Your task to perform on an android device: turn vacation reply on in the gmail app Image 0: 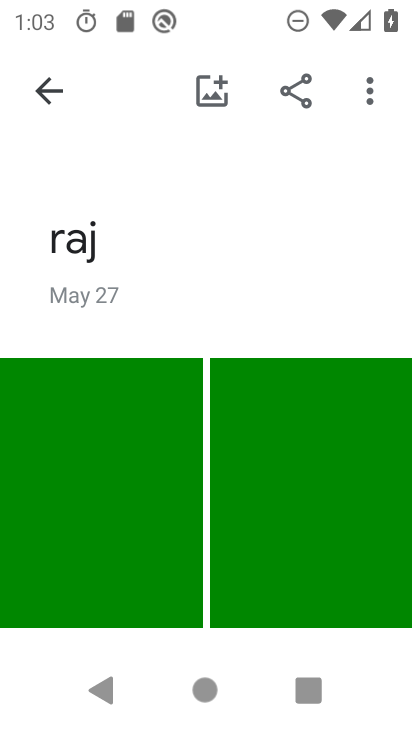
Step 0: press back button
Your task to perform on an android device: turn vacation reply on in the gmail app Image 1: 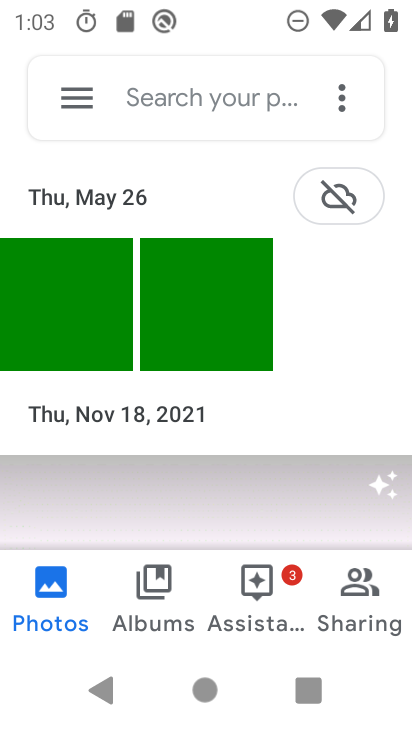
Step 1: press home button
Your task to perform on an android device: turn vacation reply on in the gmail app Image 2: 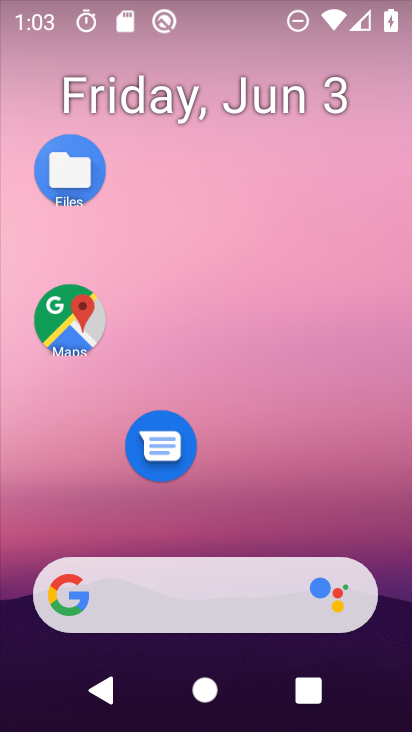
Step 2: drag from (257, 663) to (142, 164)
Your task to perform on an android device: turn vacation reply on in the gmail app Image 3: 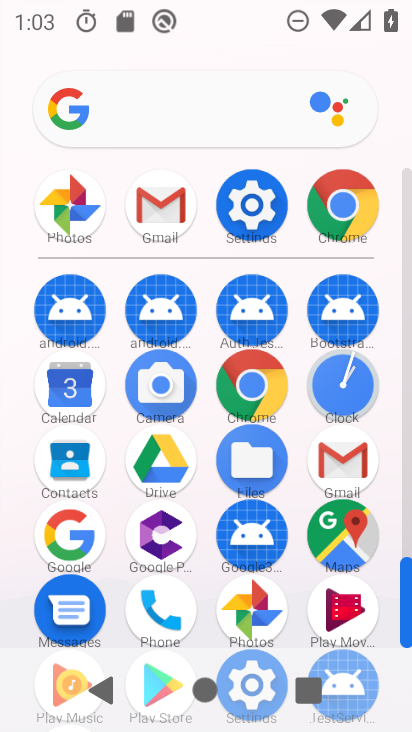
Step 3: click (334, 445)
Your task to perform on an android device: turn vacation reply on in the gmail app Image 4: 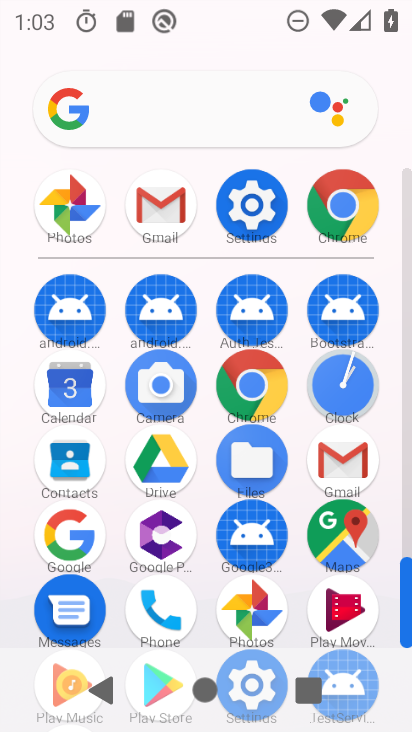
Step 4: click (334, 445)
Your task to perform on an android device: turn vacation reply on in the gmail app Image 5: 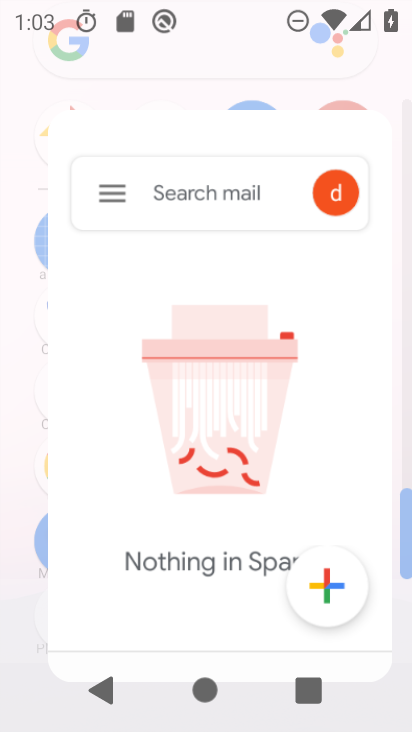
Step 5: click (334, 445)
Your task to perform on an android device: turn vacation reply on in the gmail app Image 6: 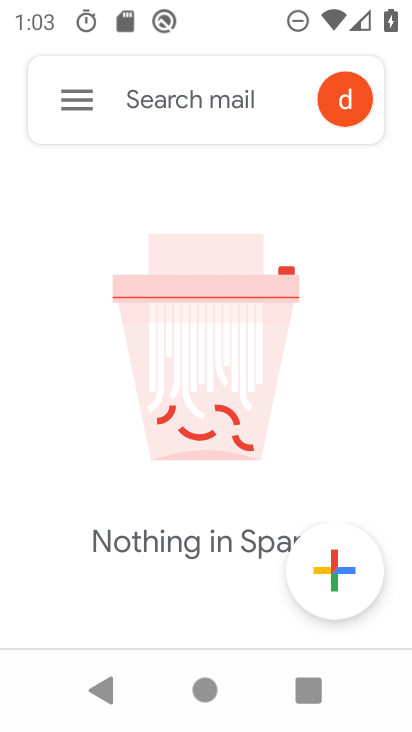
Step 6: click (78, 103)
Your task to perform on an android device: turn vacation reply on in the gmail app Image 7: 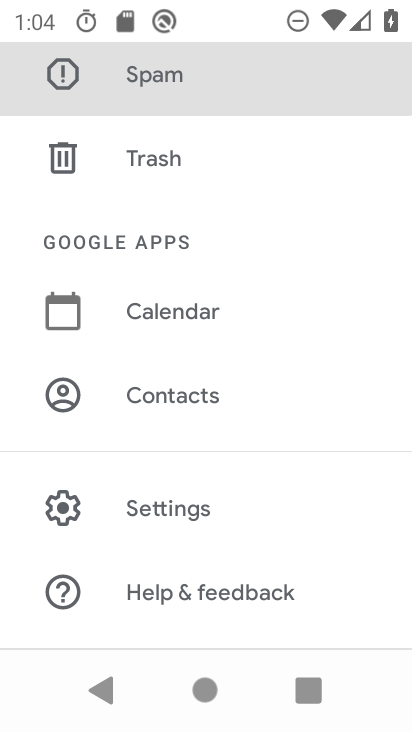
Step 7: drag from (233, 229) to (263, 439)
Your task to perform on an android device: turn vacation reply on in the gmail app Image 8: 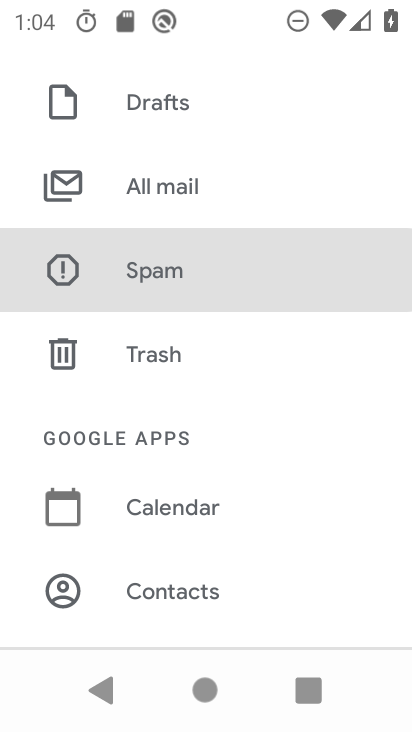
Step 8: drag from (292, 240) to (298, 466)
Your task to perform on an android device: turn vacation reply on in the gmail app Image 9: 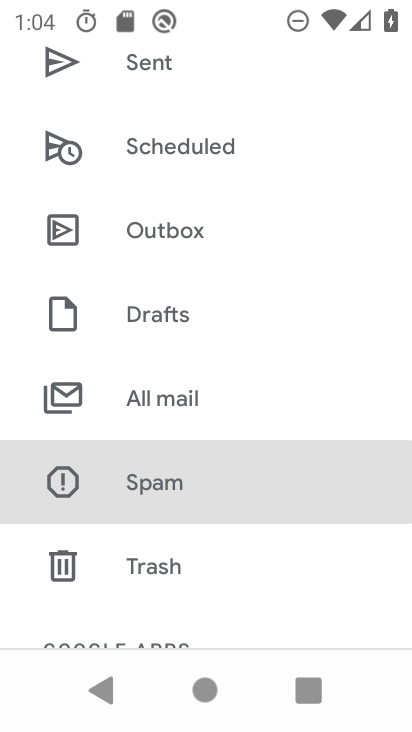
Step 9: drag from (233, 518) to (191, 92)
Your task to perform on an android device: turn vacation reply on in the gmail app Image 10: 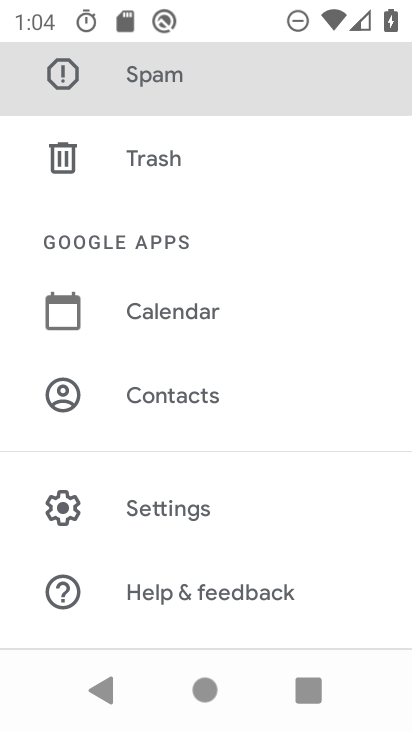
Step 10: drag from (249, 387) to (250, 198)
Your task to perform on an android device: turn vacation reply on in the gmail app Image 11: 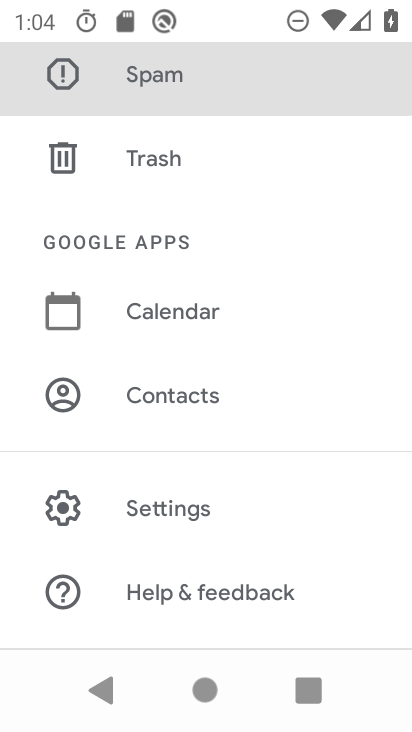
Step 11: click (175, 509)
Your task to perform on an android device: turn vacation reply on in the gmail app Image 12: 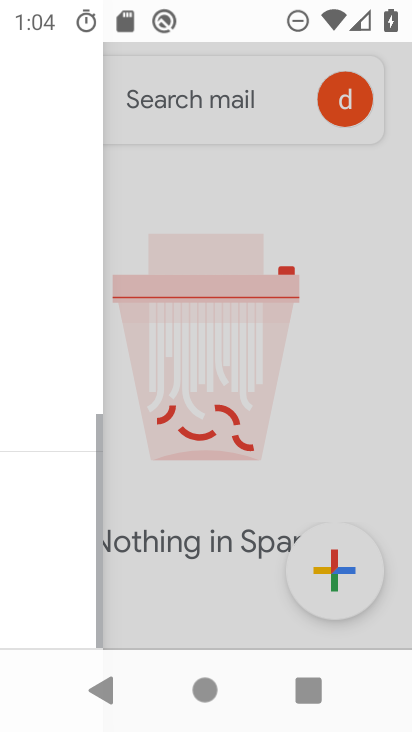
Step 12: click (175, 509)
Your task to perform on an android device: turn vacation reply on in the gmail app Image 13: 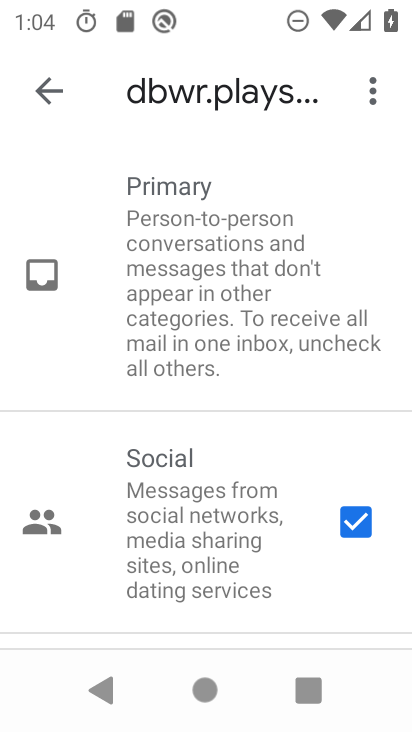
Step 13: click (59, 90)
Your task to perform on an android device: turn vacation reply on in the gmail app Image 14: 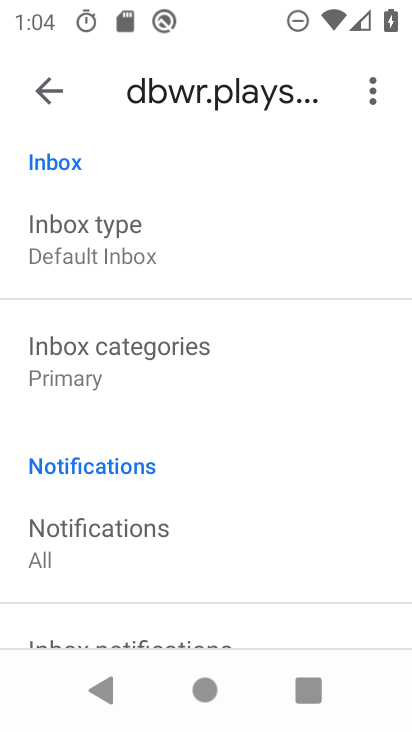
Step 14: drag from (118, 506) to (91, 124)
Your task to perform on an android device: turn vacation reply on in the gmail app Image 15: 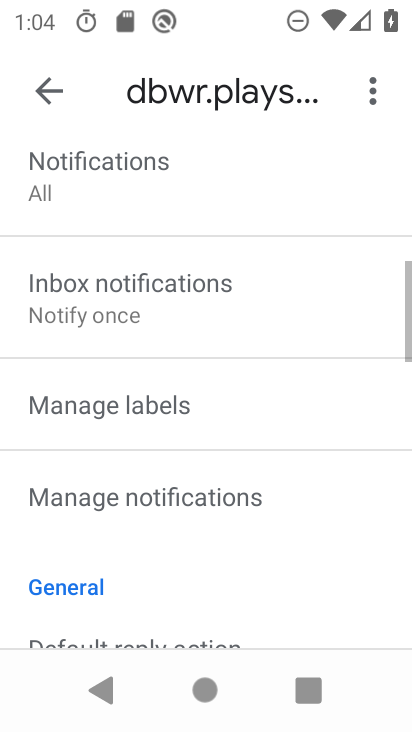
Step 15: drag from (111, 340) to (91, 162)
Your task to perform on an android device: turn vacation reply on in the gmail app Image 16: 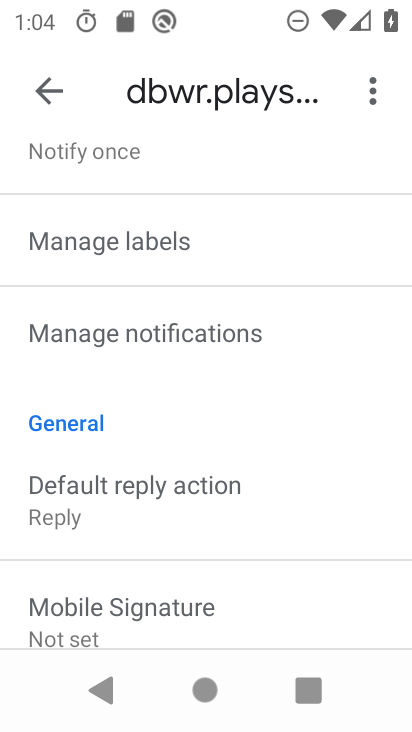
Step 16: click (110, 175)
Your task to perform on an android device: turn vacation reply on in the gmail app Image 17: 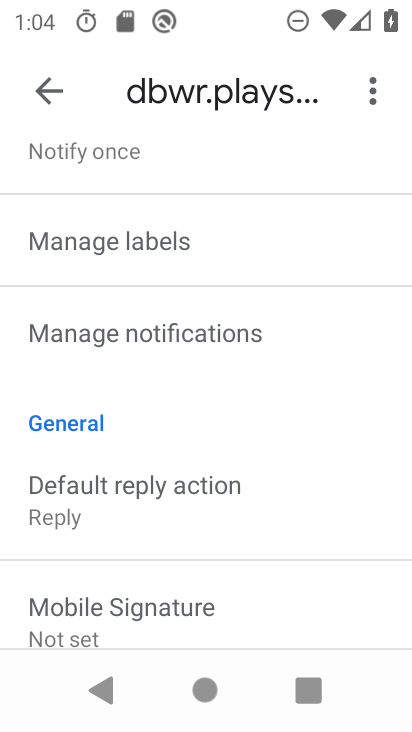
Step 17: drag from (114, 304) to (114, 159)
Your task to perform on an android device: turn vacation reply on in the gmail app Image 18: 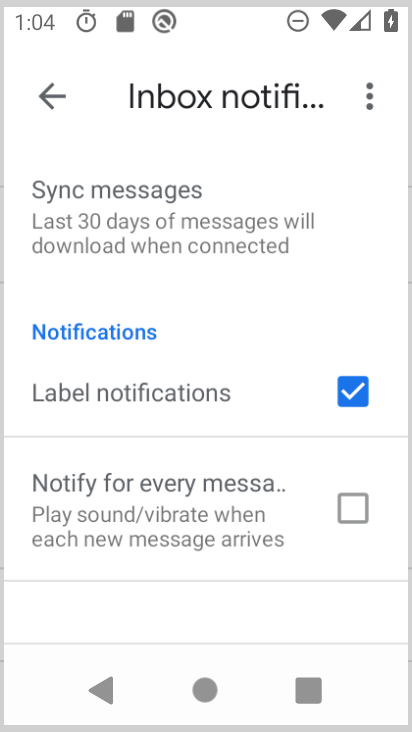
Step 18: drag from (139, 413) to (146, 231)
Your task to perform on an android device: turn vacation reply on in the gmail app Image 19: 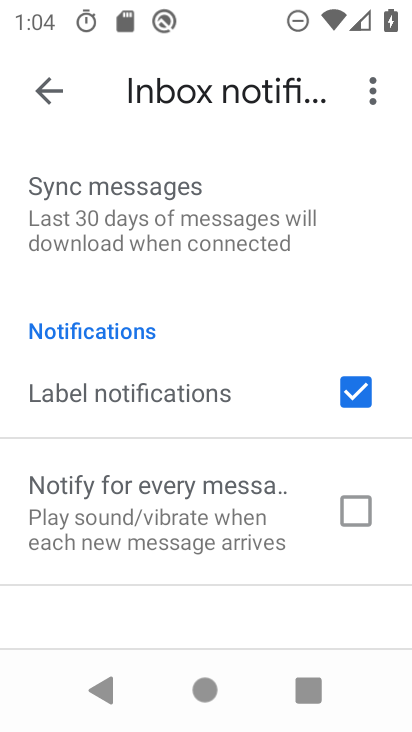
Step 19: drag from (165, 417) to (165, 248)
Your task to perform on an android device: turn vacation reply on in the gmail app Image 20: 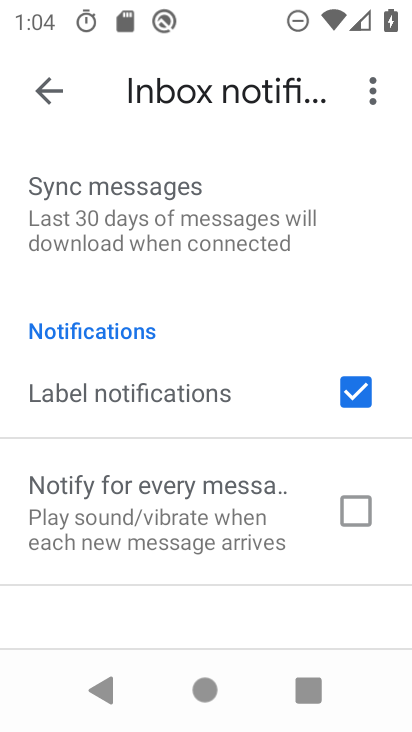
Step 20: click (44, 87)
Your task to perform on an android device: turn vacation reply on in the gmail app Image 21: 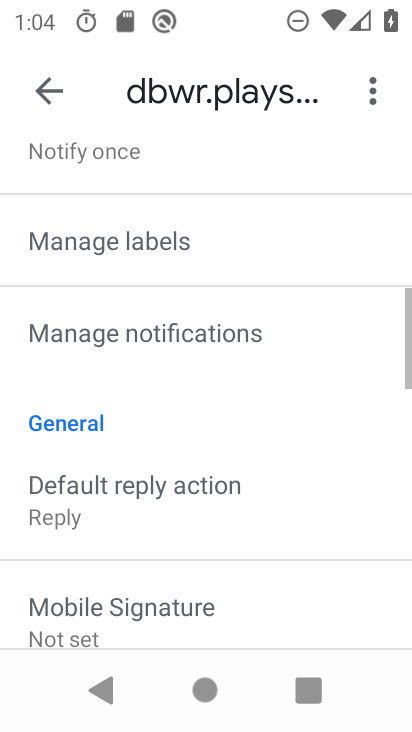
Step 21: drag from (166, 476) to (183, 202)
Your task to perform on an android device: turn vacation reply on in the gmail app Image 22: 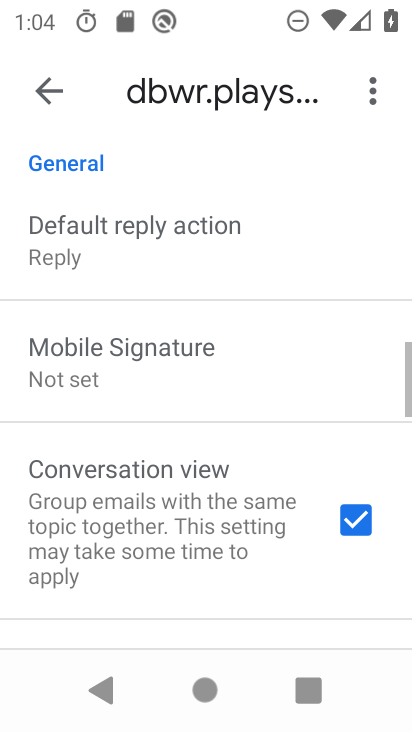
Step 22: drag from (227, 505) to (244, 236)
Your task to perform on an android device: turn vacation reply on in the gmail app Image 23: 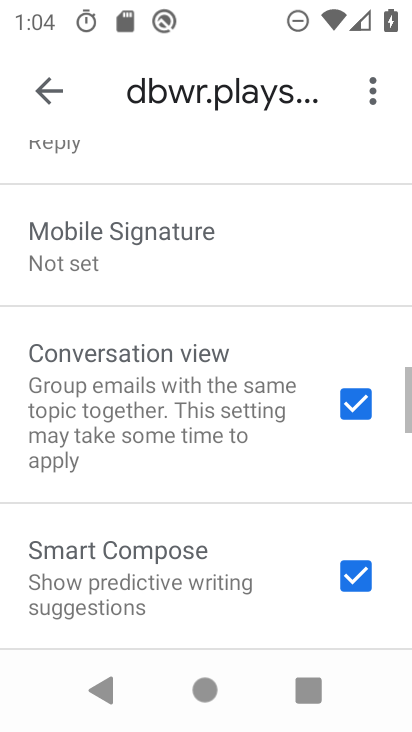
Step 23: drag from (291, 465) to (296, 273)
Your task to perform on an android device: turn vacation reply on in the gmail app Image 24: 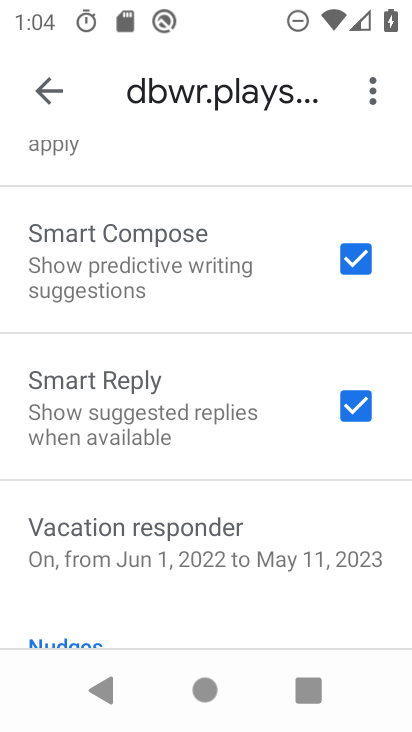
Step 24: drag from (223, 480) to (224, 297)
Your task to perform on an android device: turn vacation reply on in the gmail app Image 25: 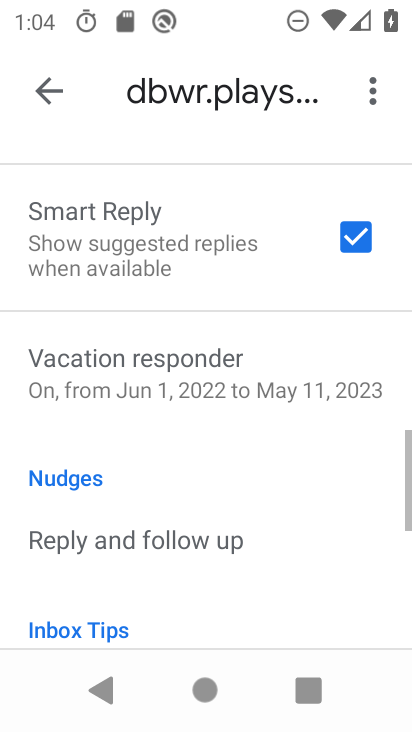
Step 25: drag from (242, 433) to (242, 220)
Your task to perform on an android device: turn vacation reply on in the gmail app Image 26: 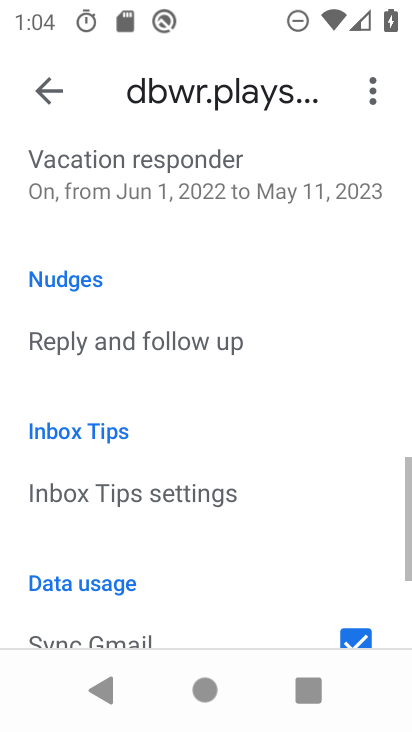
Step 26: drag from (242, 444) to (252, 265)
Your task to perform on an android device: turn vacation reply on in the gmail app Image 27: 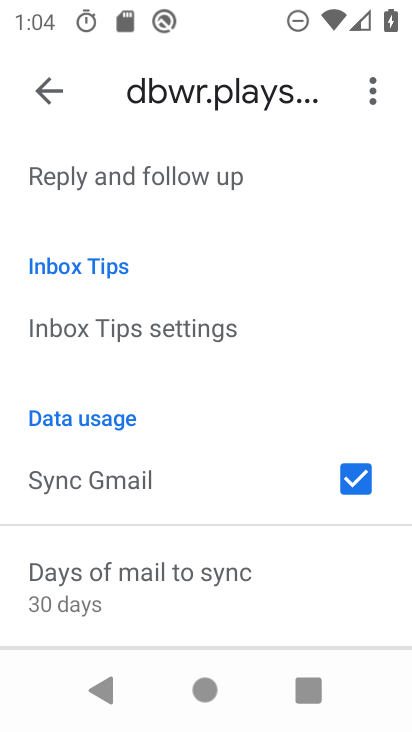
Step 27: drag from (225, 467) to (226, 392)
Your task to perform on an android device: turn vacation reply on in the gmail app Image 28: 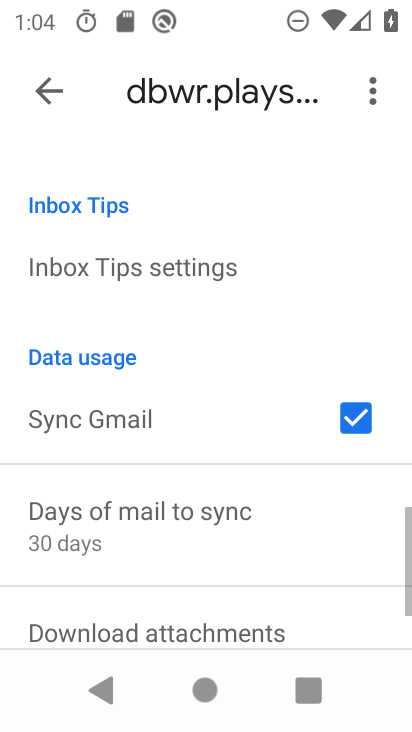
Step 28: drag from (209, 330) to (209, 556)
Your task to perform on an android device: turn vacation reply on in the gmail app Image 29: 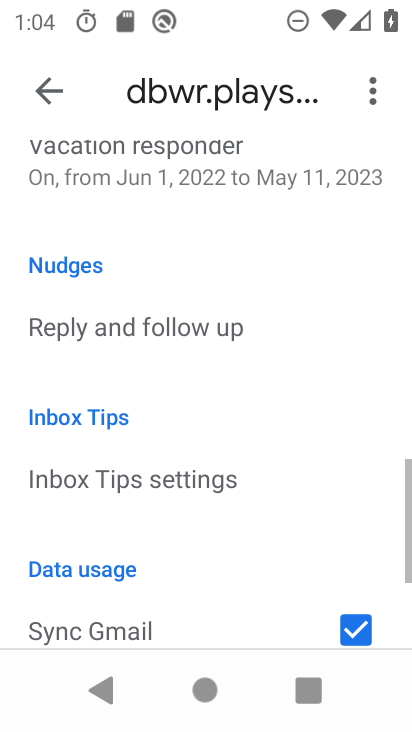
Step 29: drag from (175, 325) to (175, 586)
Your task to perform on an android device: turn vacation reply on in the gmail app Image 30: 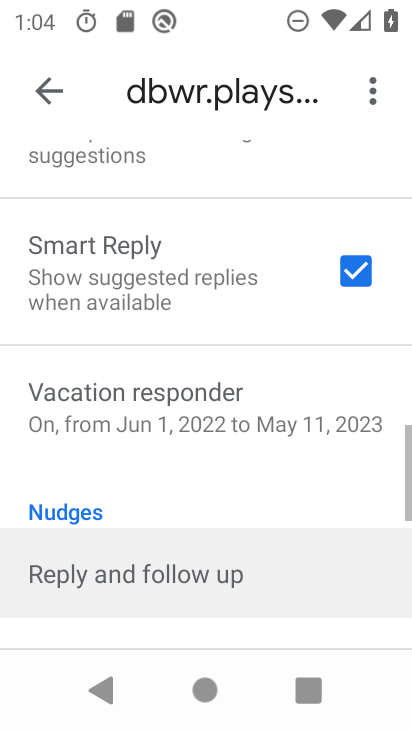
Step 30: drag from (139, 346) to (174, 618)
Your task to perform on an android device: turn vacation reply on in the gmail app Image 31: 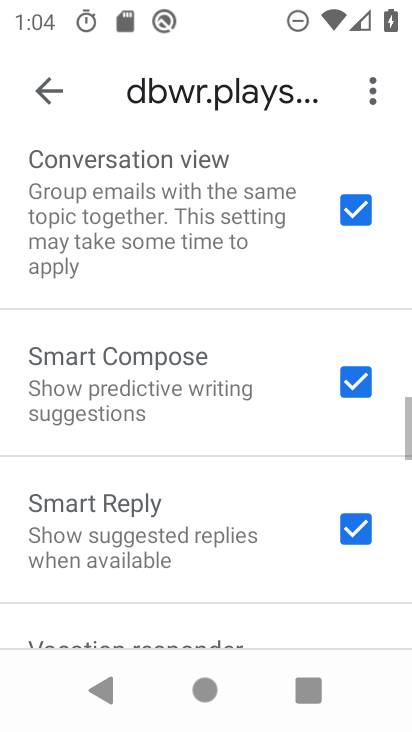
Step 31: drag from (159, 334) to (190, 577)
Your task to perform on an android device: turn vacation reply on in the gmail app Image 32: 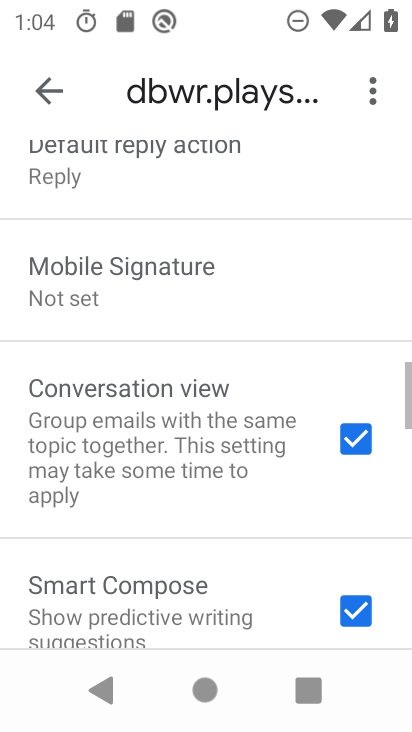
Step 32: drag from (155, 329) to (180, 532)
Your task to perform on an android device: turn vacation reply on in the gmail app Image 33: 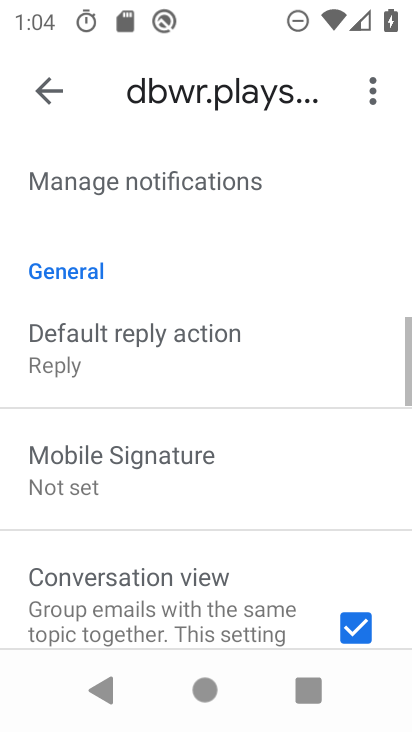
Step 33: drag from (154, 325) to (187, 578)
Your task to perform on an android device: turn vacation reply on in the gmail app Image 34: 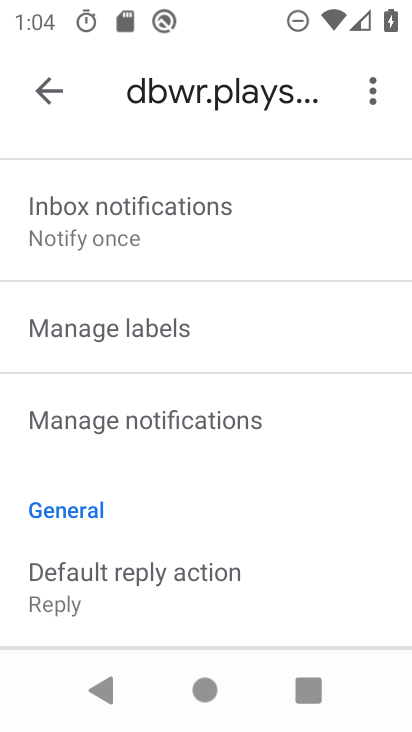
Step 34: drag from (181, 332) to (227, 631)
Your task to perform on an android device: turn vacation reply on in the gmail app Image 35: 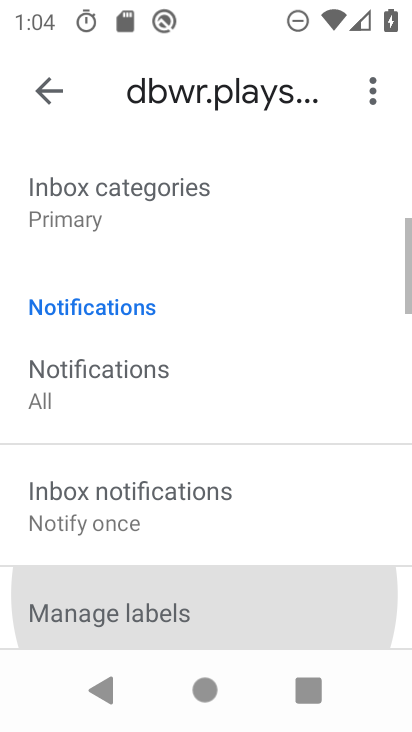
Step 35: drag from (151, 307) to (177, 512)
Your task to perform on an android device: turn vacation reply on in the gmail app Image 36: 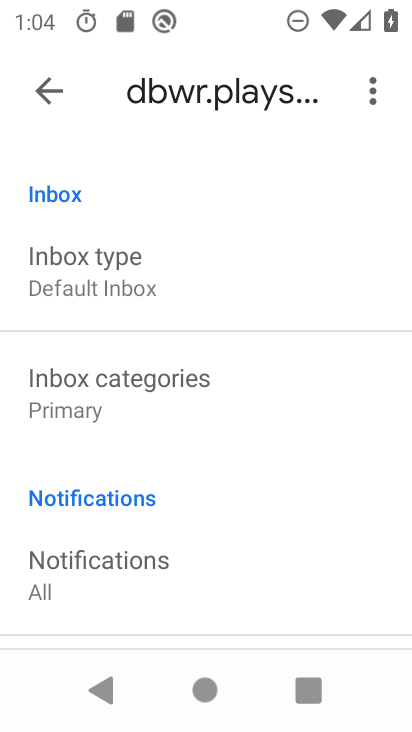
Step 36: drag from (121, 291) to (150, 556)
Your task to perform on an android device: turn vacation reply on in the gmail app Image 37: 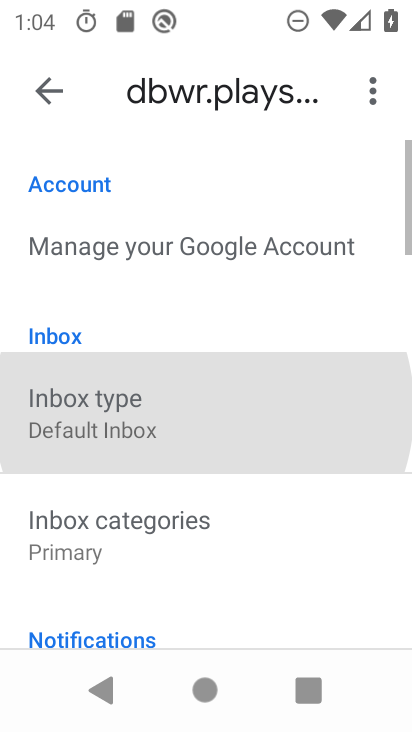
Step 37: drag from (103, 318) to (126, 509)
Your task to perform on an android device: turn vacation reply on in the gmail app Image 38: 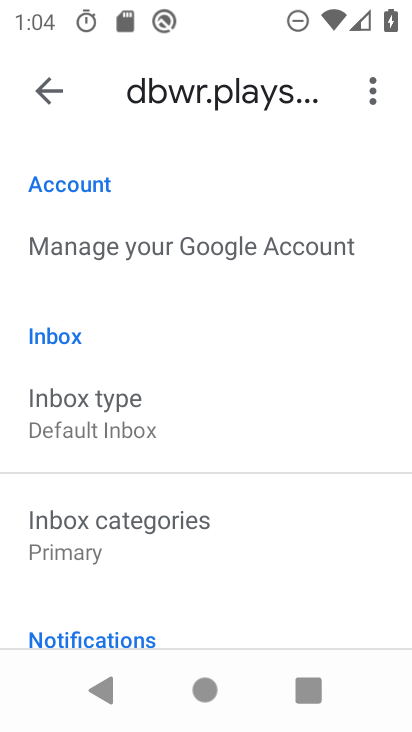
Step 38: drag from (159, 330) to (220, 578)
Your task to perform on an android device: turn vacation reply on in the gmail app Image 39: 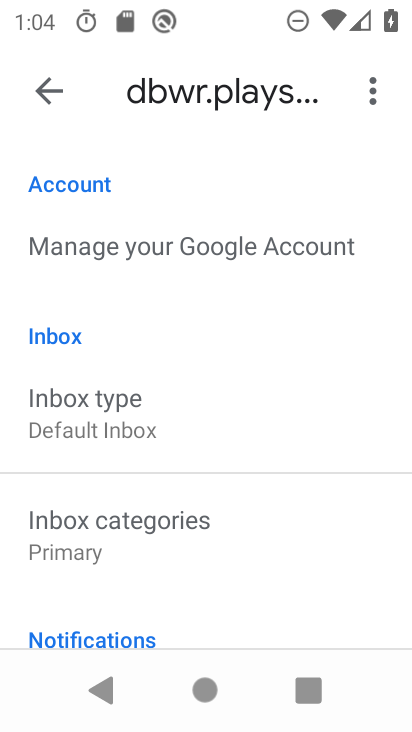
Step 39: drag from (226, 583) to (234, 335)
Your task to perform on an android device: turn vacation reply on in the gmail app Image 40: 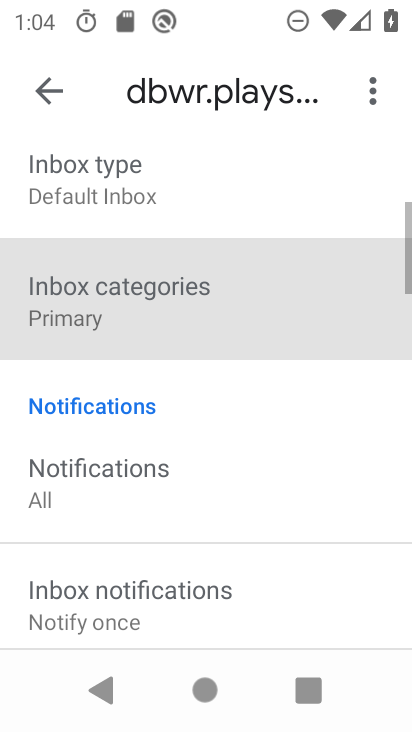
Step 40: drag from (232, 486) to (222, 289)
Your task to perform on an android device: turn vacation reply on in the gmail app Image 41: 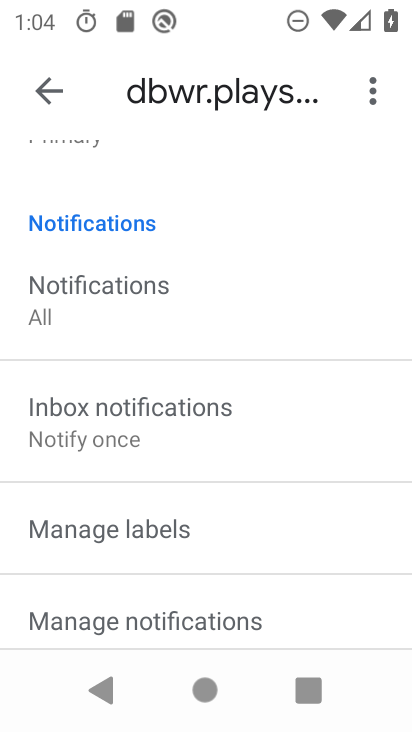
Step 41: drag from (220, 509) to (202, 301)
Your task to perform on an android device: turn vacation reply on in the gmail app Image 42: 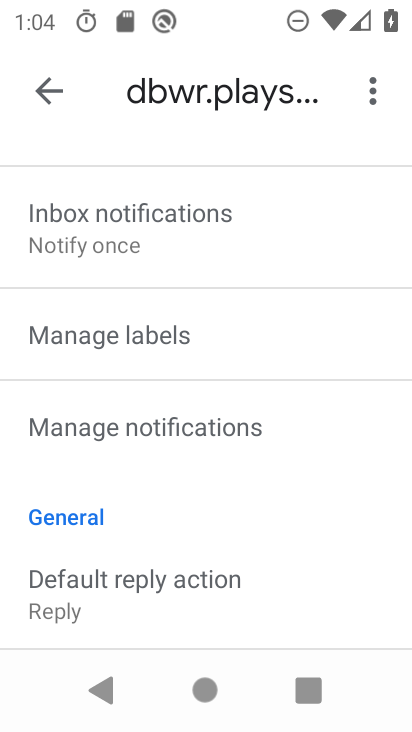
Step 42: drag from (207, 488) to (207, 208)
Your task to perform on an android device: turn vacation reply on in the gmail app Image 43: 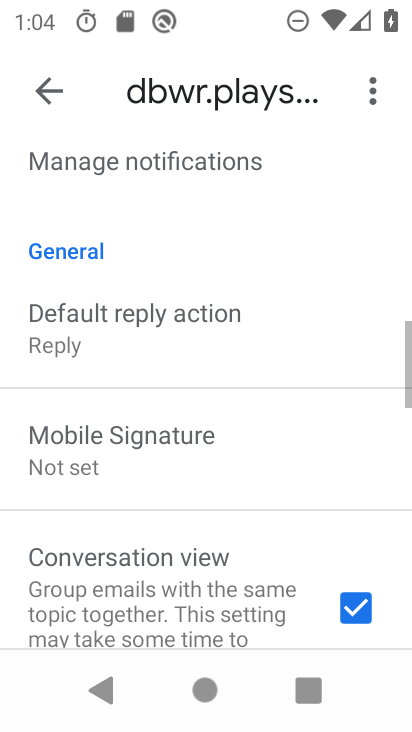
Step 43: drag from (207, 422) to (205, 236)
Your task to perform on an android device: turn vacation reply on in the gmail app Image 44: 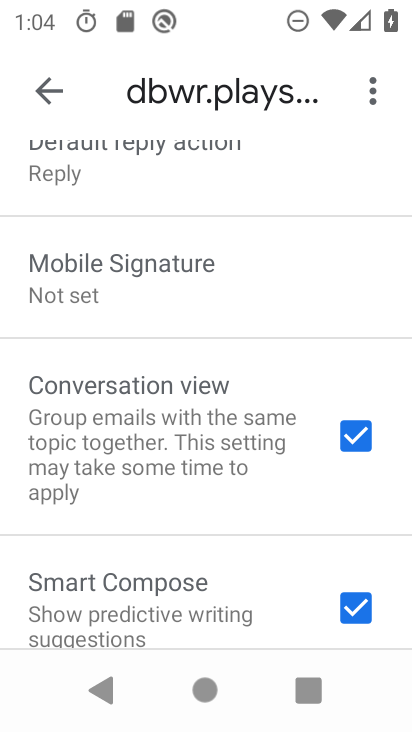
Step 44: drag from (202, 466) to (199, 307)
Your task to perform on an android device: turn vacation reply on in the gmail app Image 45: 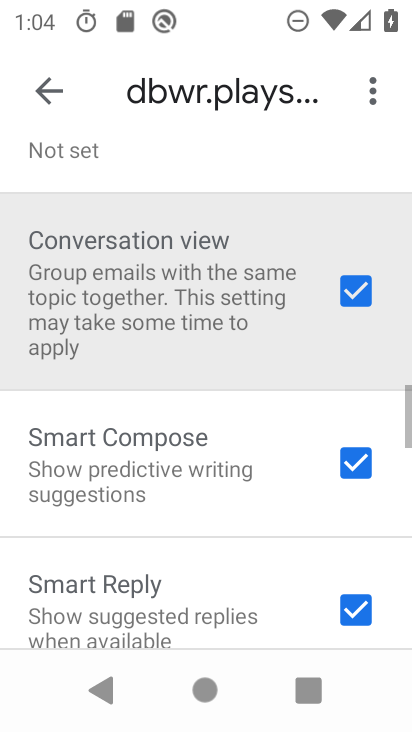
Step 45: drag from (196, 451) to (196, 264)
Your task to perform on an android device: turn vacation reply on in the gmail app Image 46: 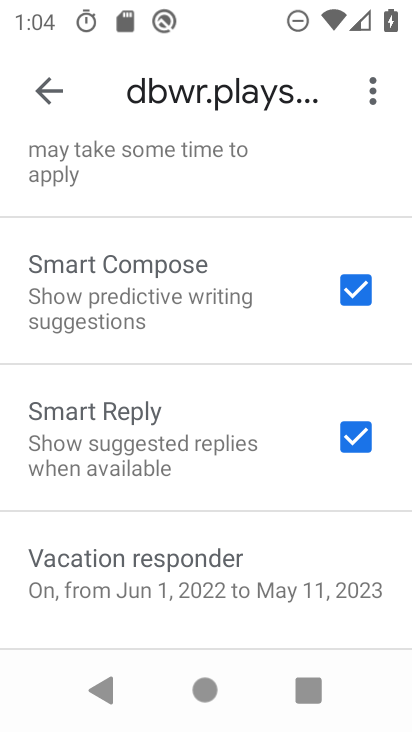
Step 46: click (239, 566)
Your task to perform on an android device: turn vacation reply on in the gmail app Image 47: 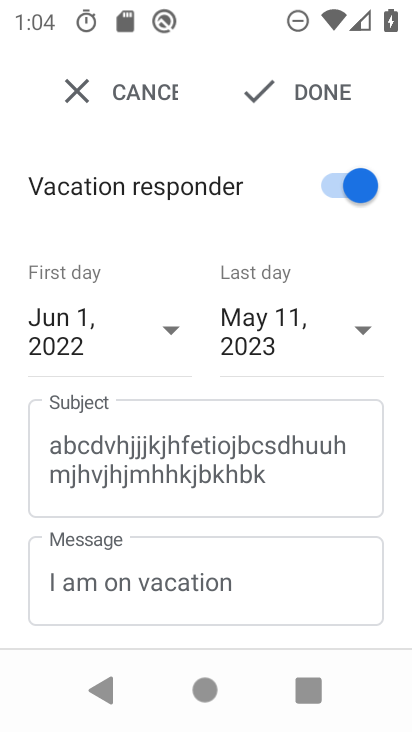
Step 47: task complete